Your task to perform on an android device: show emergency info Image 0: 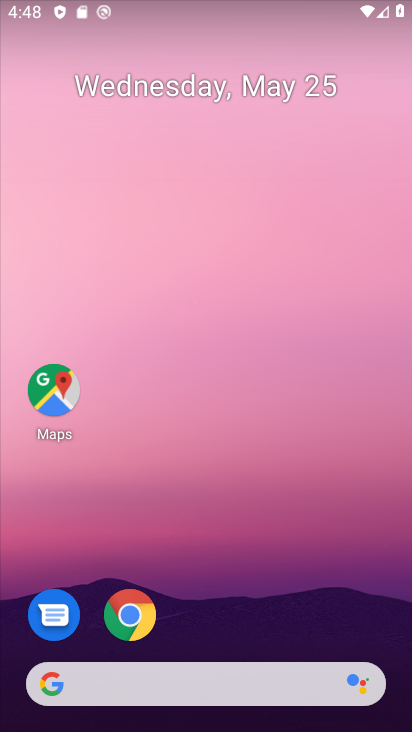
Step 0: press home button
Your task to perform on an android device: show emergency info Image 1: 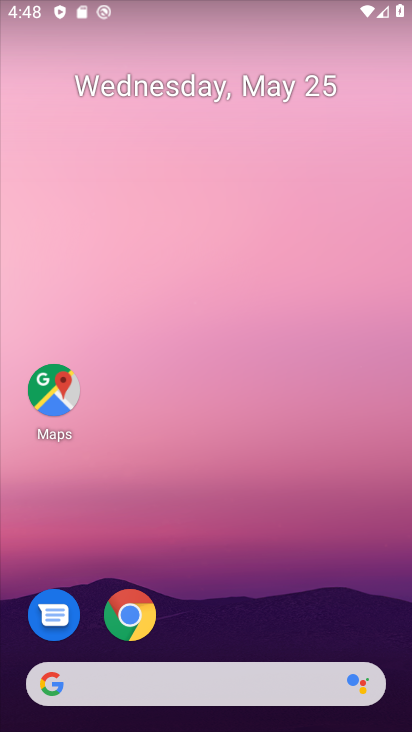
Step 1: drag from (247, 652) to (266, 10)
Your task to perform on an android device: show emergency info Image 2: 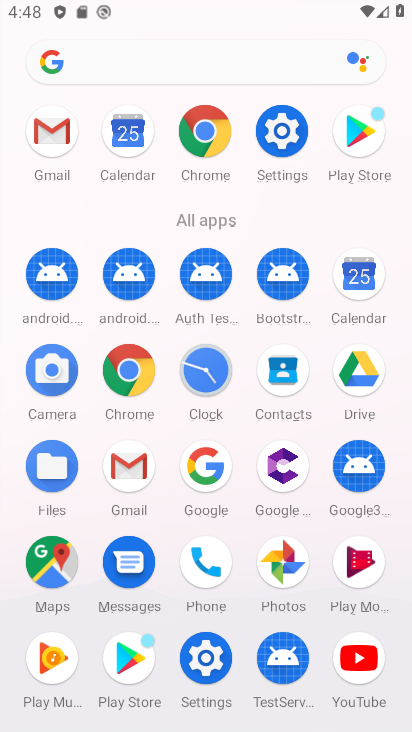
Step 2: click (276, 129)
Your task to perform on an android device: show emergency info Image 3: 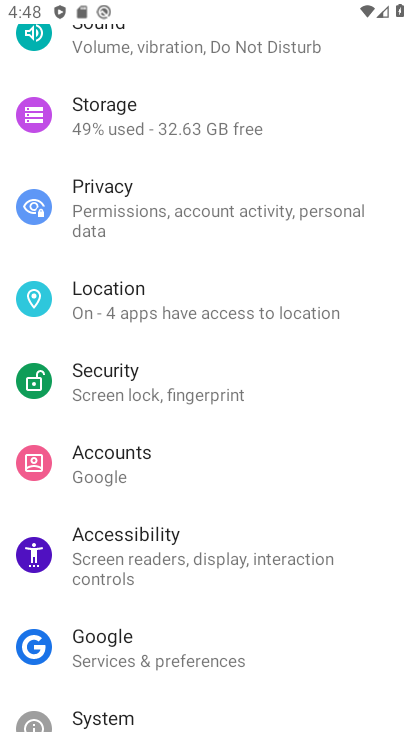
Step 3: drag from (240, 184) to (245, 5)
Your task to perform on an android device: show emergency info Image 4: 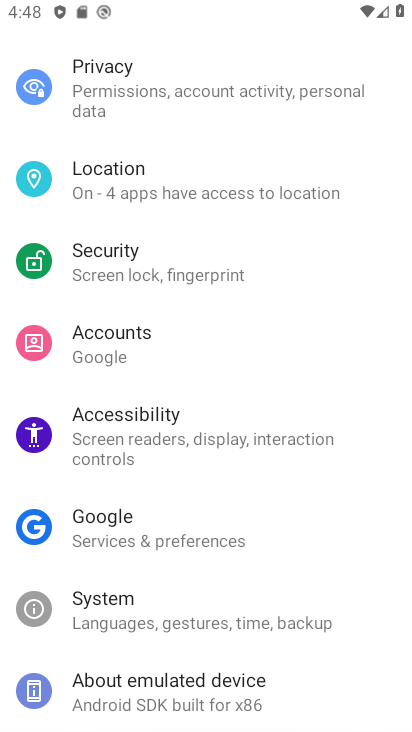
Step 4: drag from (243, 136) to (261, 28)
Your task to perform on an android device: show emergency info Image 5: 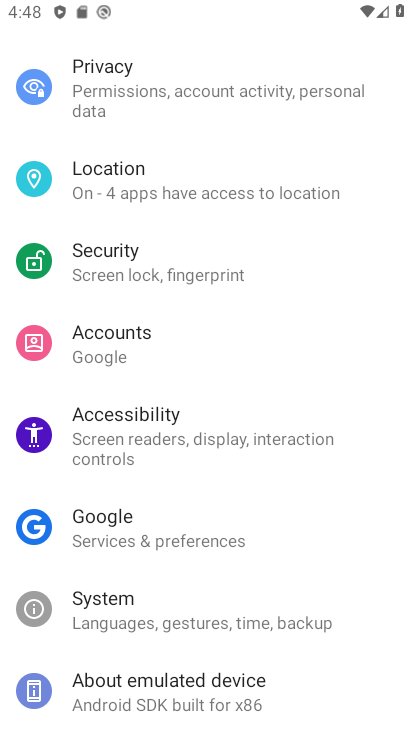
Step 5: click (203, 700)
Your task to perform on an android device: show emergency info Image 6: 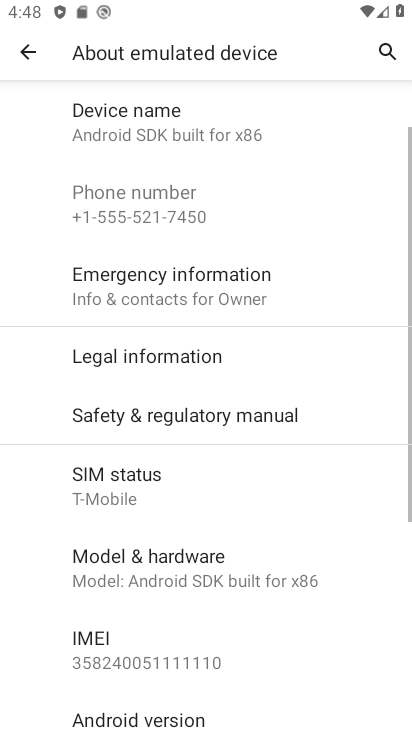
Step 6: click (206, 271)
Your task to perform on an android device: show emergency info Image 7: 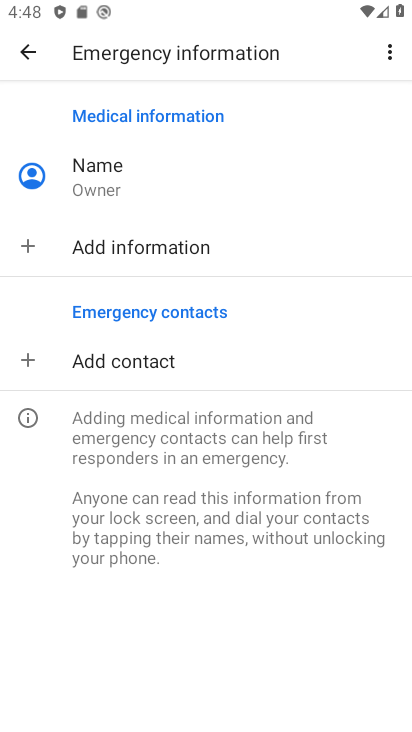
Step 7: task complete